Your task to perform on an android device: turn off wifi Image 0: 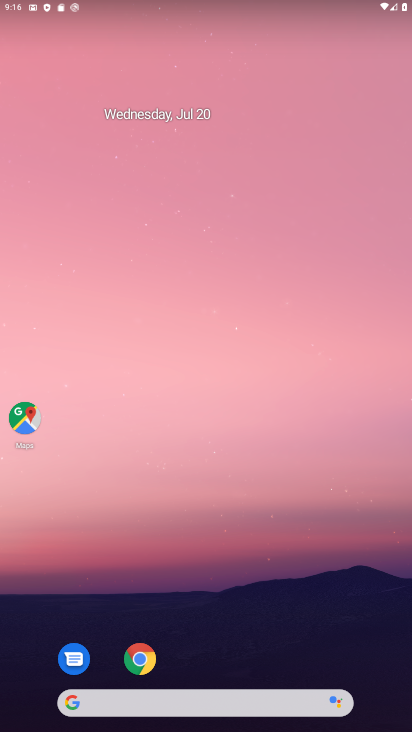
Step 0: drag from (251, 571) to (246, 223)
Your task to perform on an android device: turn off wifi Image 1: 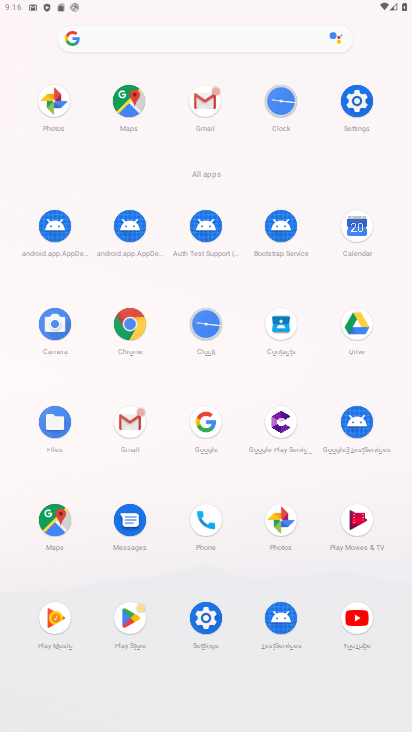
Step 1: click (358, 96)
Your task to perform on an android device: turn off wifi Image 2: 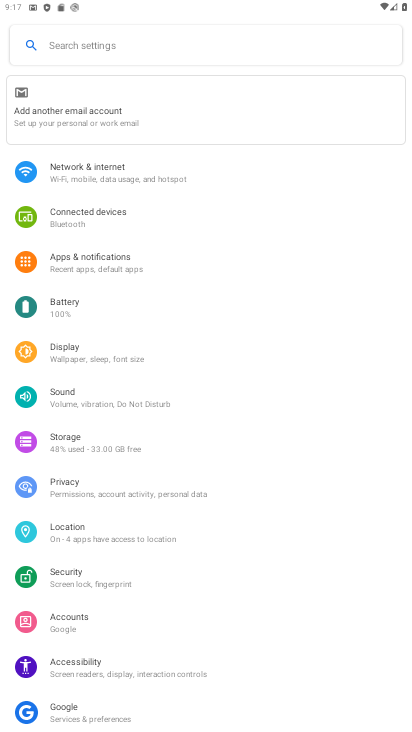
Step 2: click (92, 165)
Your task to perform on an android device: turn off wifi Image 3: 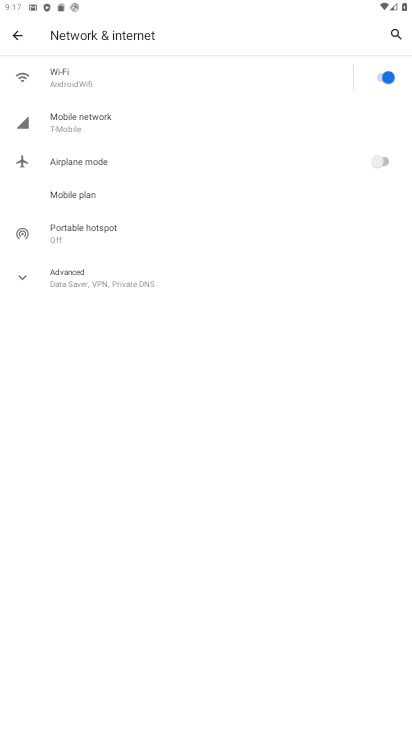
Step 3: click (383, 78)
Your task to perform on an android device: turn off wifi Image 4: 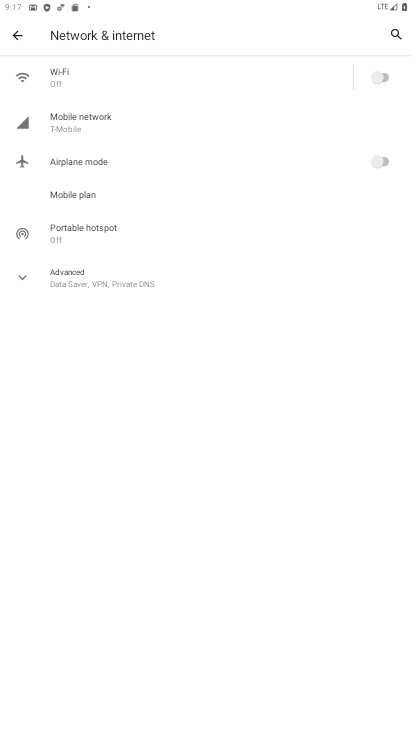
Step 4: task complete